Your task to perform on an android device: open a new tab in the chrome app Image 0: 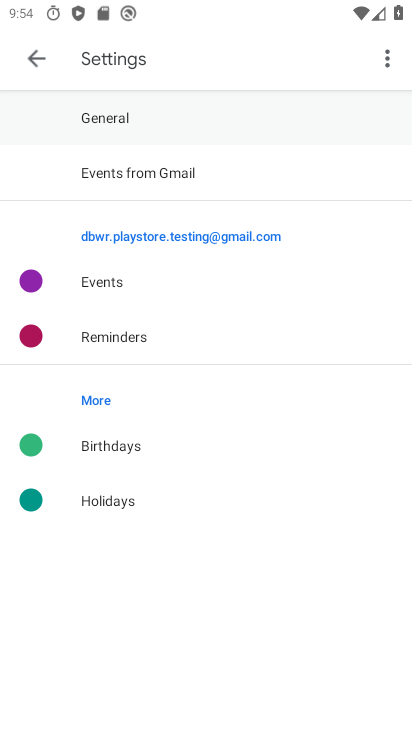
Step 0: press home button
Your task to perform on an android device: open a new tab in the chrome app Image 1: 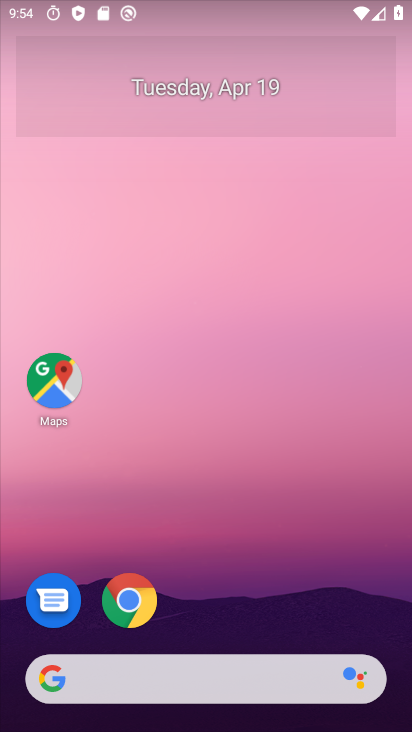
Step 1: click (133, 605)
Your task to perform on an android device: open a new tab in the chrome app Image 2: 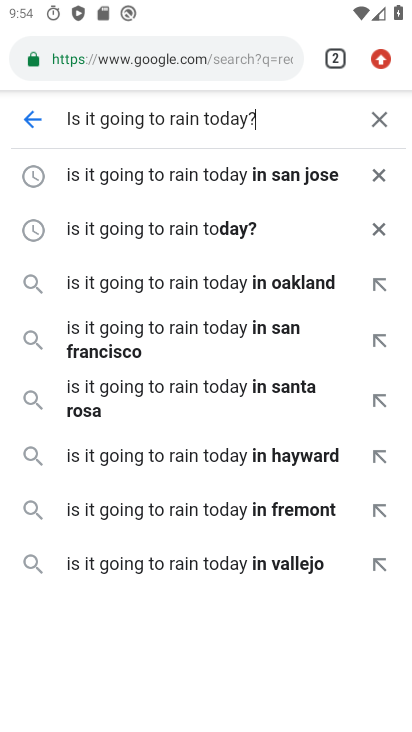
Step 2: press home button
Your task to perform on an android device: open a new tab in the chrome app Image 3: 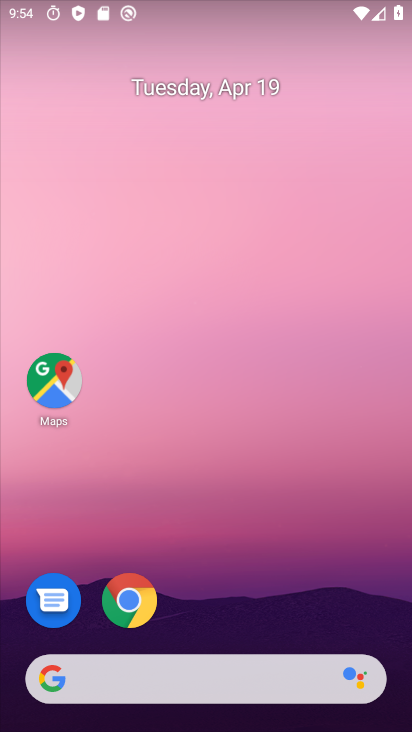
Step 3: click (135, 598)
Your task to perform on an android device: open a new tab in the chrome app Image 4: 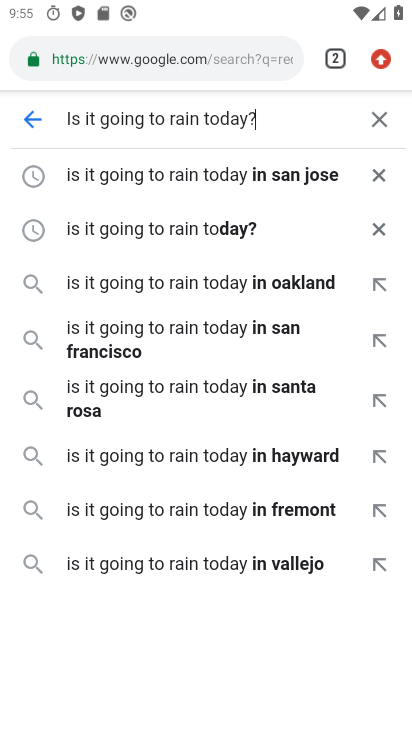
Step 4: click (383, 80)
Your task to perform on an android device: open a new tab in the chrome app Image 5: 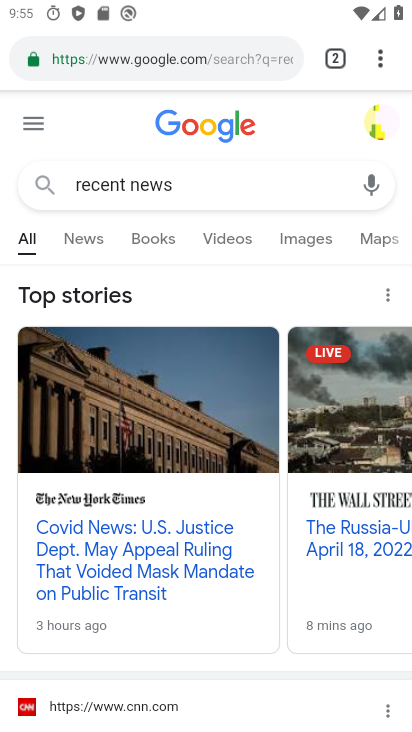
Step 5: click (383, 64)
Your task to perform on an android device: open a new tab in the chrome app Image 6: 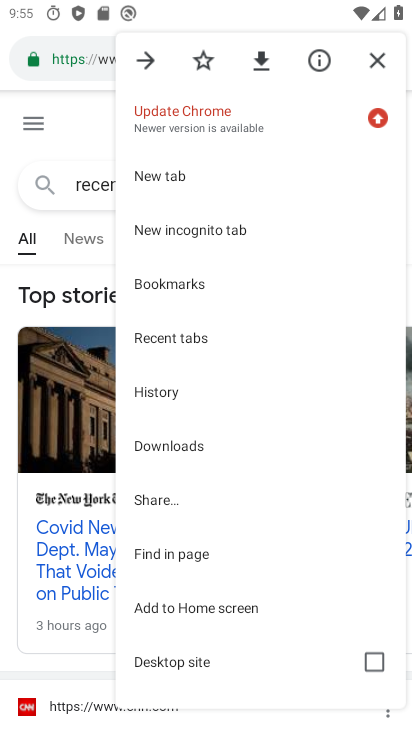
Step 6: click (257, 172)
Your task to perform on an android device: open a new tab in the chrome app Image 7: 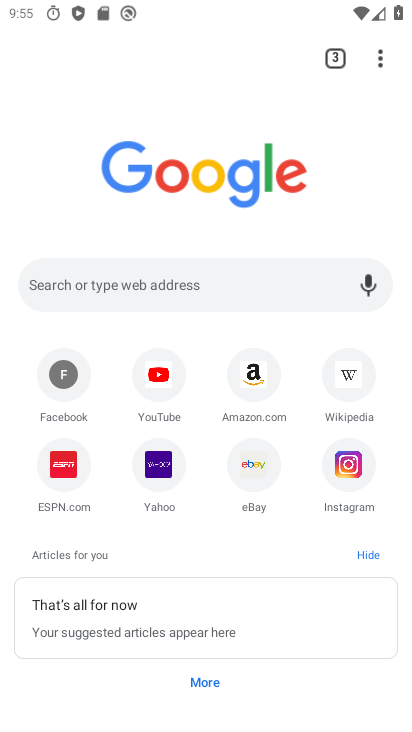
Step 7: task complete